Your task to perform on an android device: find which apps use the phone's location Image 0: 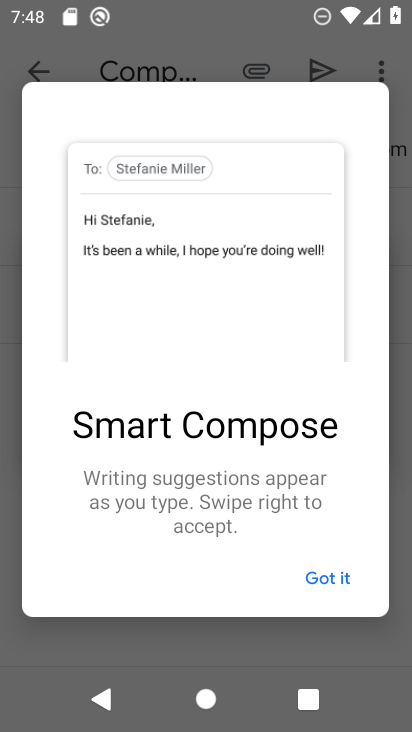
Step 0: press home button
Your task to perform on an android device: find which apps use the phone's location Image 1: 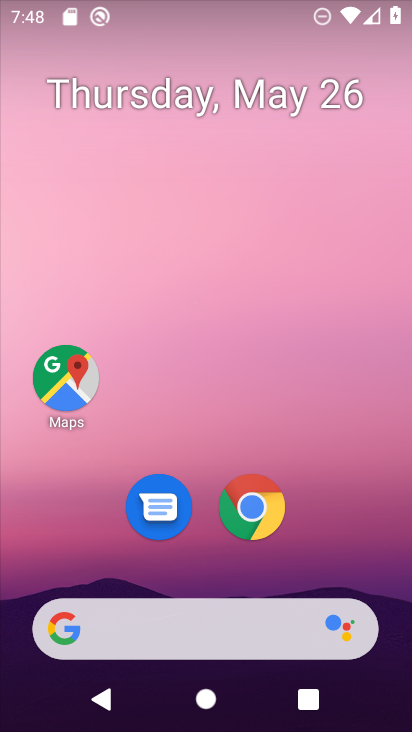
Step 1: drag from (236, 465) to (234, 191)
Your task to perform on an android device: find which apps use the phone's location Image 2: 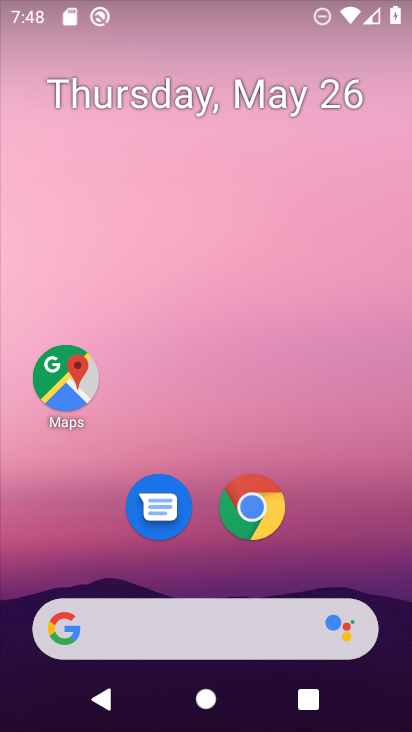
Step 2: drag from (205, 659) to (203, 215)
Your task to perform on an android device: find which apps use the phone's location Image 3: 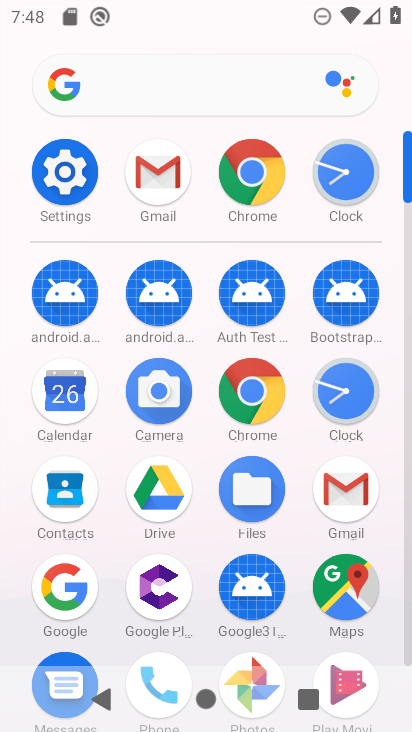
Step 3: click (62, 184)
Your task to perform on an android device: find which apps use the phone's location Image 4: 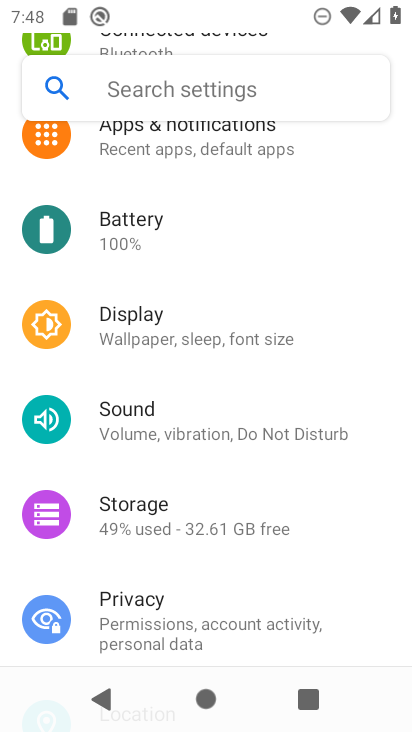
Step 4: drag from (140, 603) to (136, 415)
Your task to perform on an android device: find which apps use the phone's location Image 5: 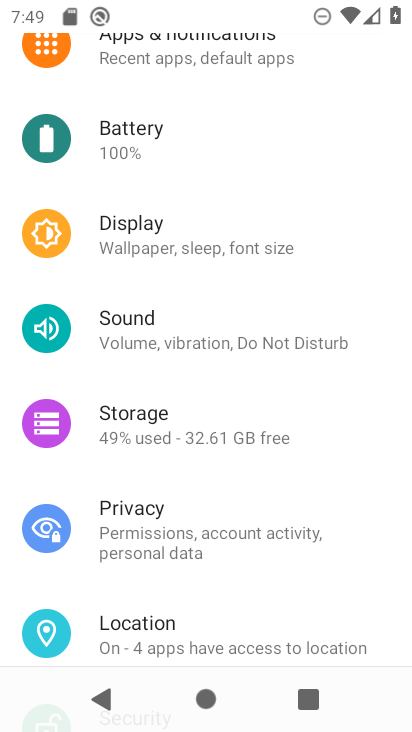
Step 5: click (133, 622)
Your task to perform on an android device: find which apps use the phone's location Image 6: 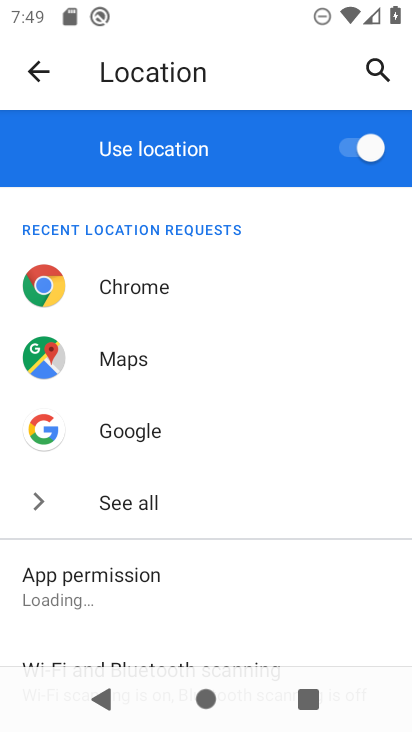
Step 6: click (62, 600)
Your task to perform on an android device: find which apps use the phone's location Image 7: 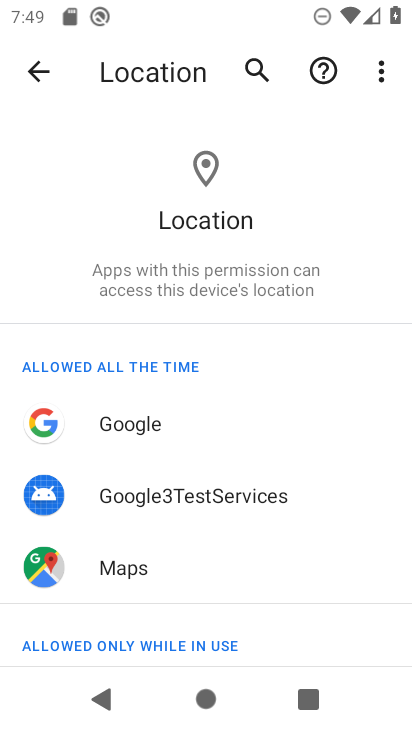
Step 7: task complete